Your task to perform on an android device: allow notifications from all sites in the chrome app Image 0: 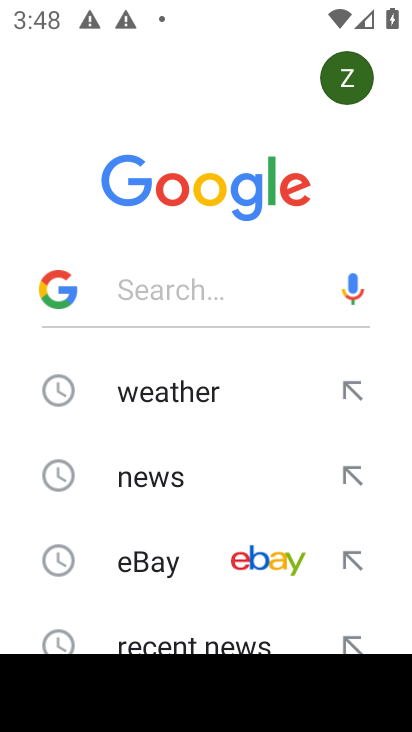
Step 0: press home button
Your task to perform on an android device: allow notifications from all sites in the chrome app Image 1: 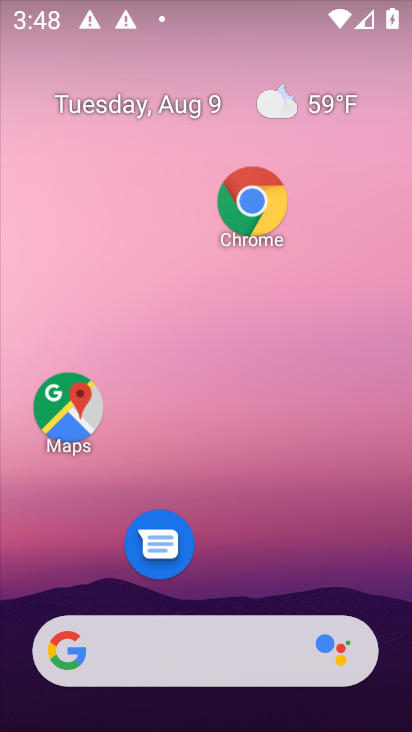
Step 1: drag from (183, 627) to (248, 130)
Your task to perform on an android device: allow notifications from all sites in the chrome app Image 2: 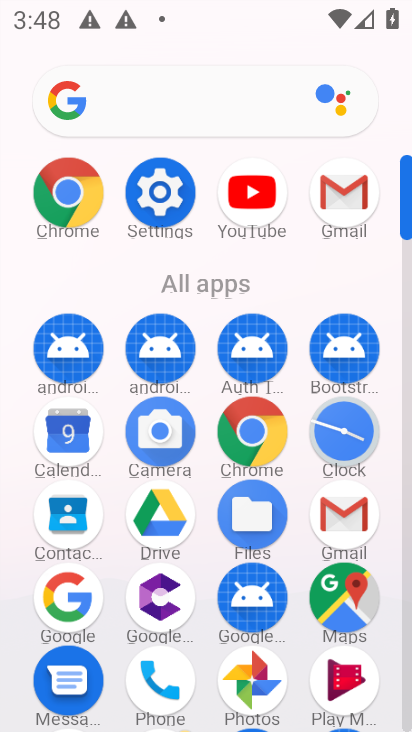
Step 2: click (78, 184)
Your task to perform on an android device: allow notifications from all sites in the chrome app Image 3: 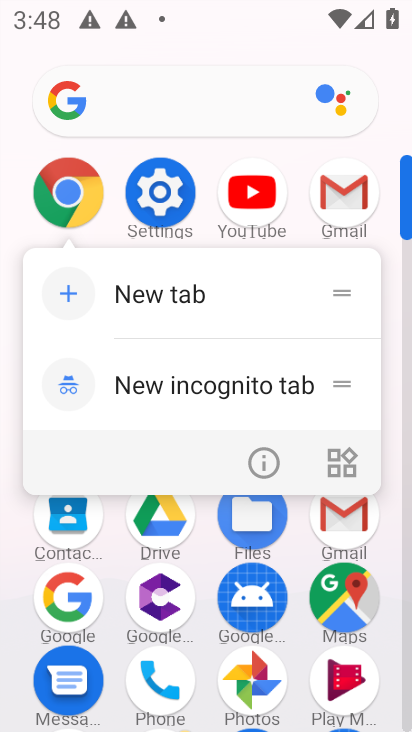
Step 3: click (57, 185)
Your task to perform on an android device: allow notifications from all sites in the chrome app Image 4: 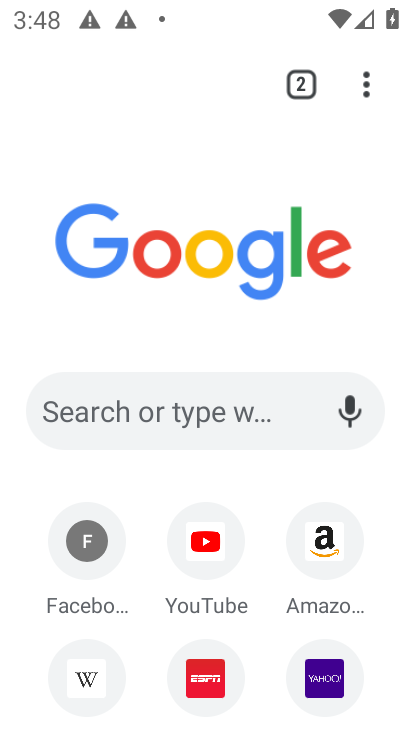
Step 4: click (366, 78)
Your task to perform on an android device: allow notifications from all sites in the chrome app Image 5: 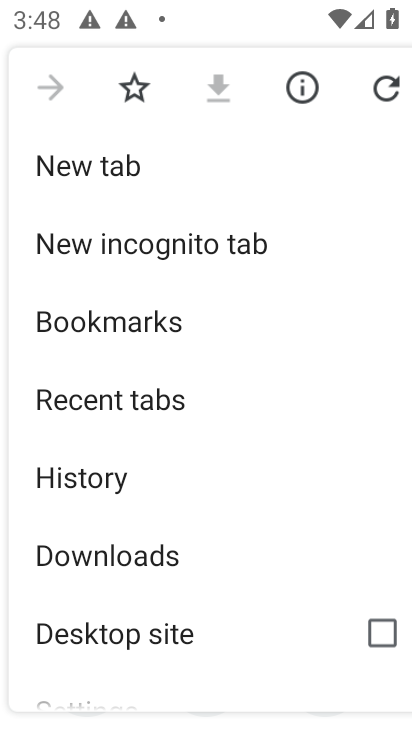
Step 5: drag from (80, 688) to (130, 369)
Your task to perform on an android device: allow notifications from all sites in the chrome app Image 6: 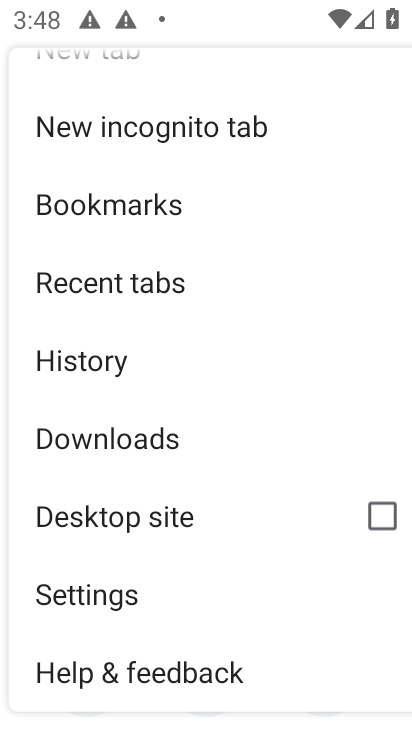
Step 6: click (98, 598)
Your task to perform on an android device: allow notifications from all sites in the chrome app Image 7: 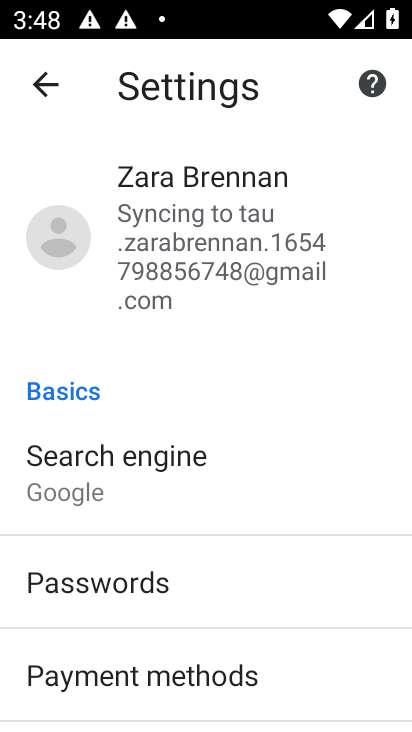
Step 7: drag from (78, 671) to (90, 297)
Your task to perform on an android device: allow notifications from all sites in the chrome app Image 8: 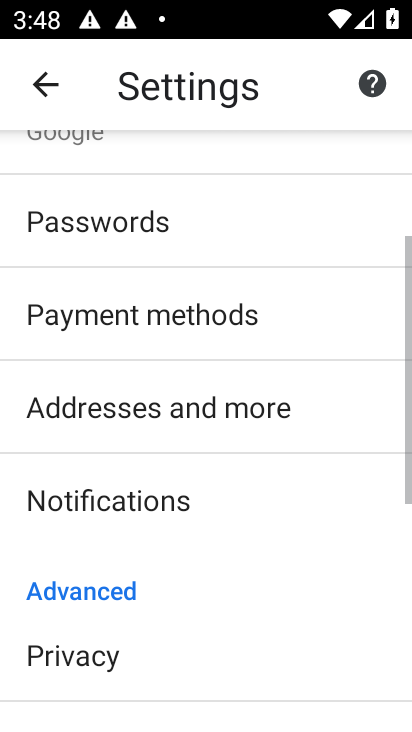
Step 8: drag from (69, 680) to (49, 380)
Your task to perform on an android device: allow notifications from all sites in the chrome app Image 9: 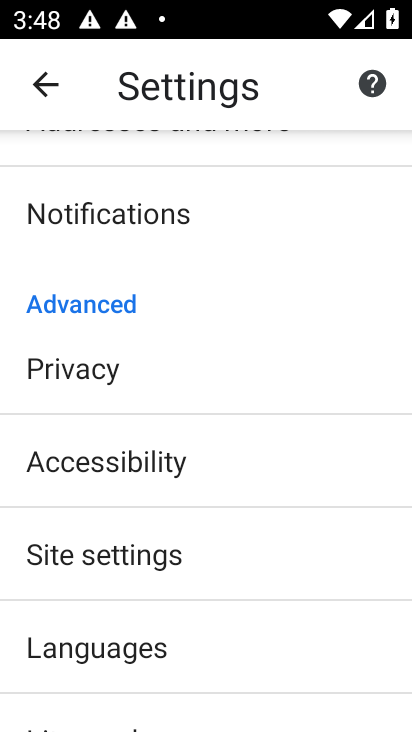
Step 9: click (53, 561)
Your task to perform on an android device: allow notifications from all sites in the chrome app Image 10: 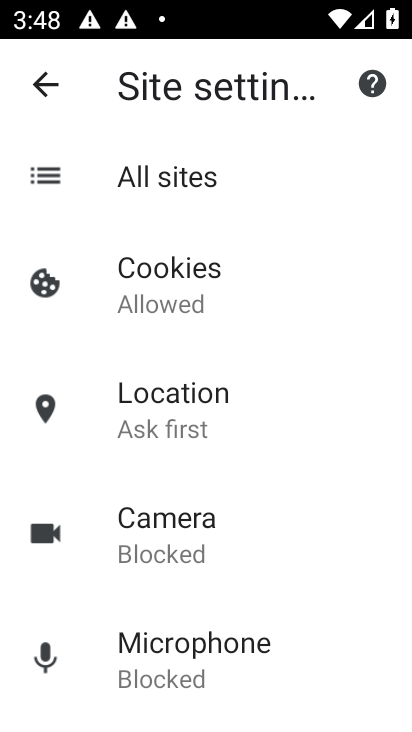
Step 10: drag from (156, 407) to (157, 333)
Your task to perform on an android device: allow notifications from all sites in the chrome app Image 11: 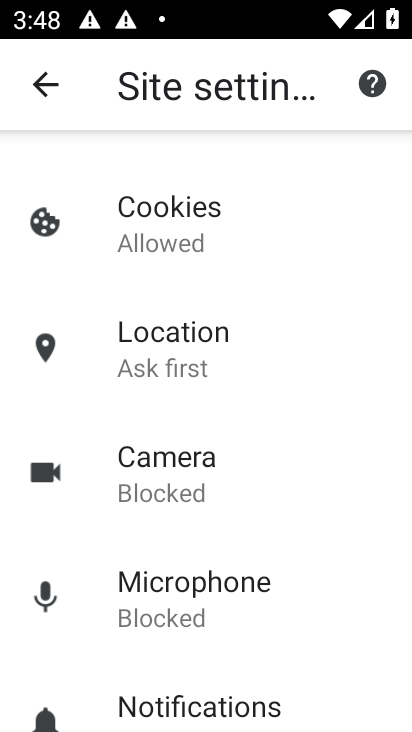
Step 11: click (166, 713)
Your task to perform on an android device: allow notifications from all sites in the chrome app Image 12: 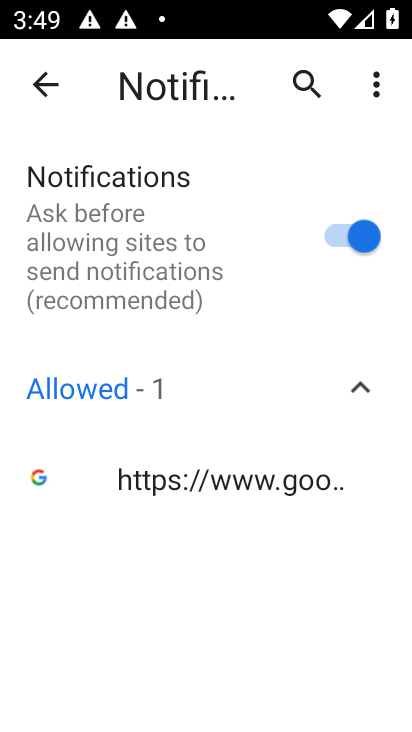
Step 12: task complete